Your task to perform on an android device: Open Google Chrome and click the shortcut for Amazon.com Image 0: 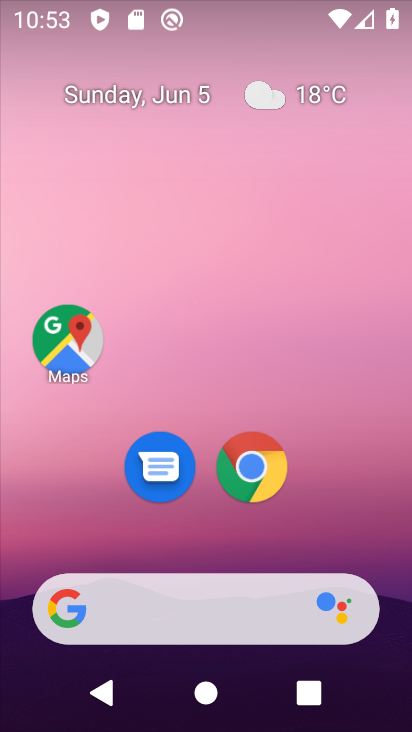
Step 0: click (241, 473)
Your task to perform on an android device: Open Google Chrome and click the shortcut for Amazon.com Image 1: 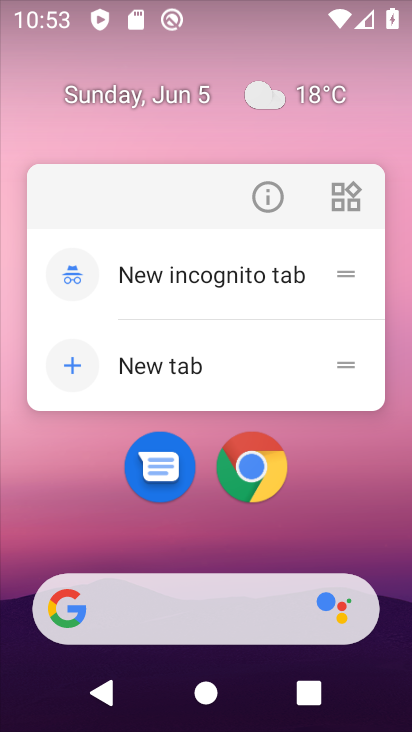
Step 1: click (241, 473)
Your task to perform on an android device: Open Google Chrome and click the shortcut for Amazon.com Image 2: 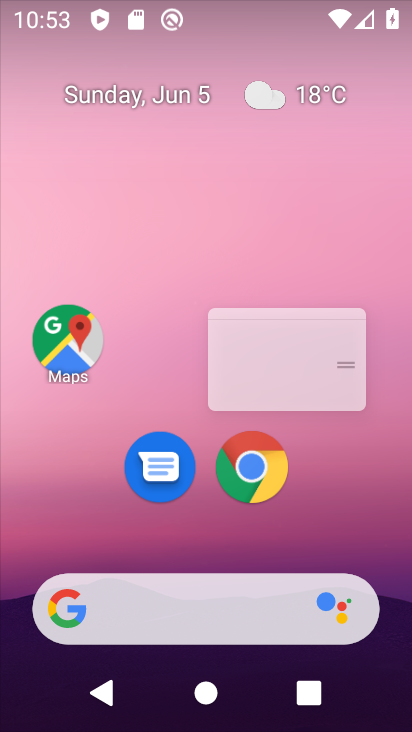
Step 2: click (241, 473)
Your task to perform on an android device: Open Google Chrome and click the shortcut for Amazon.com Image 3: 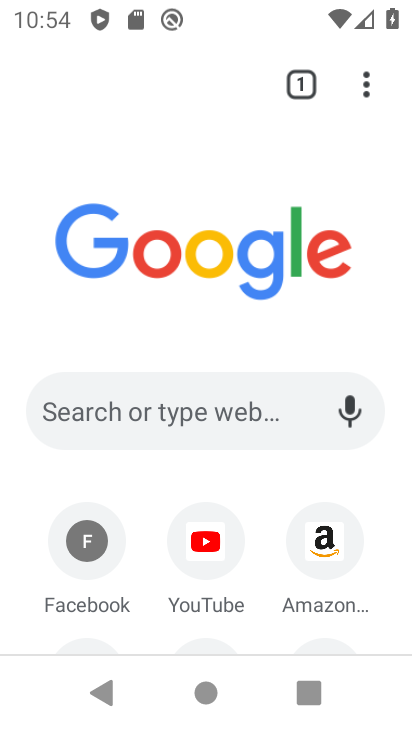
Step 3: click (312, 541)
Your task to perform on an android device: Open Google Chrome and click the shortcut for Amazon.com Image 4: 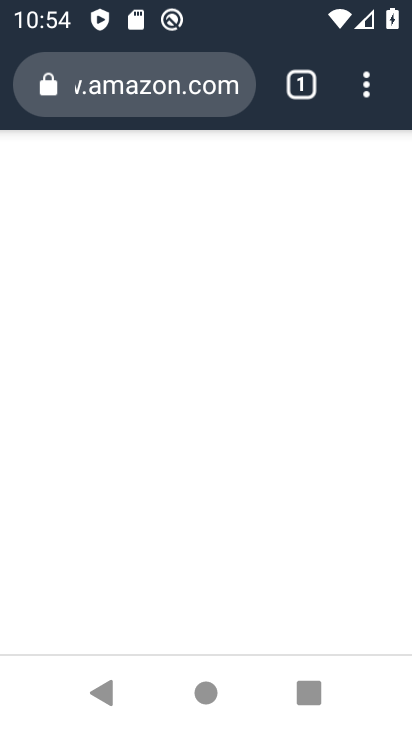
Step 4: task complete